Your task to perform on an android device: What's on my calendar tomorrow? Image 0: 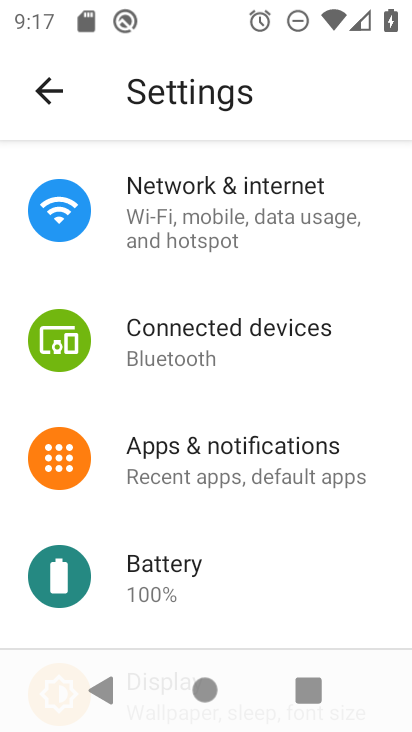
Step 0: press home button
Your task to perform on an android device: What's on my calendar tomorrow? Image 1: 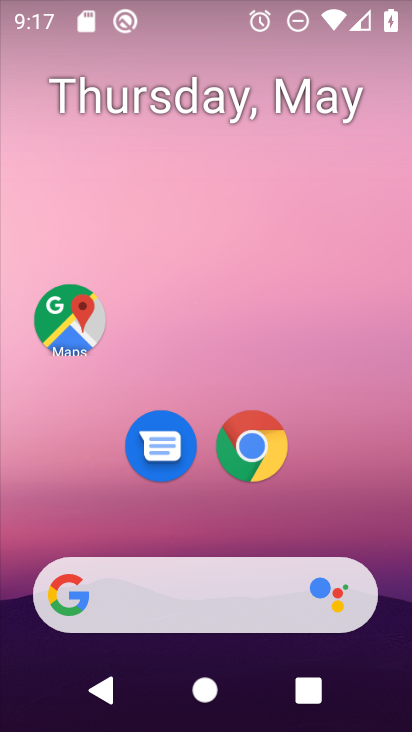
Step 1: drag from (359, 530) to (302, 158)
Your task to perform on an android device: What's on my calendar tomorrow? Image 2: 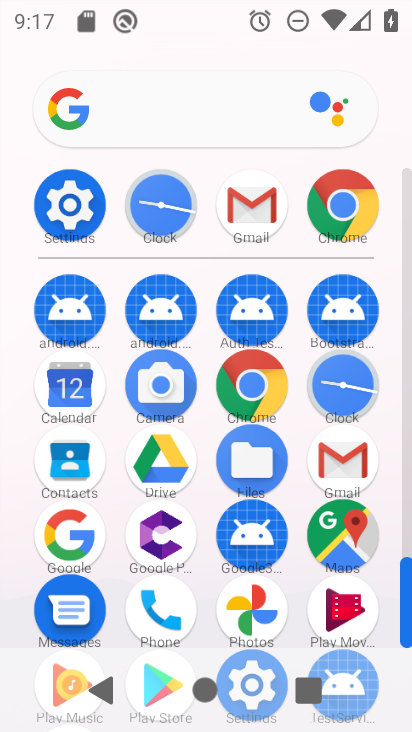
Step 2: click (79, 397)
Your task to perform on an android device: What's on my calendar tomorrow? Image 3: 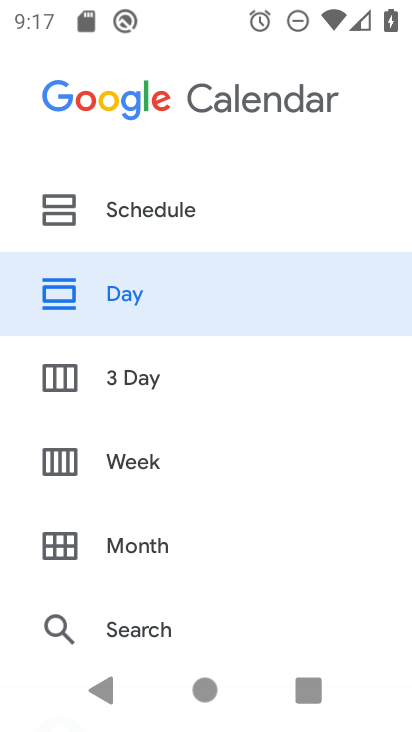
Step 3: click (129, 205)
Your task to perform on an android device: What's on my calendar tomorrow? Image 4: 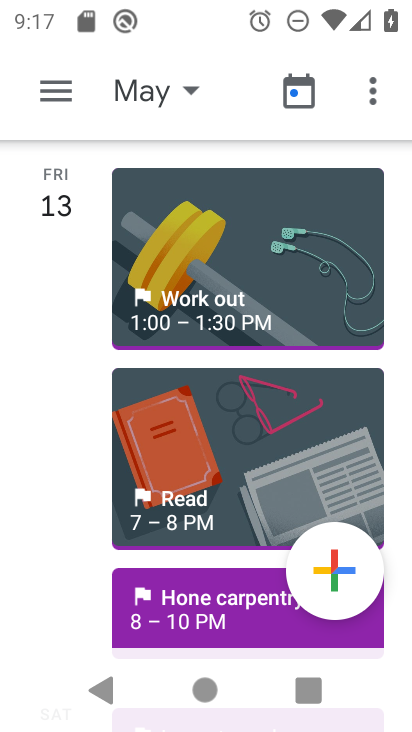
Step 4: click (145, 82)
Your task to perform on an android device: What's on my calendar tomorrow? Image 5: 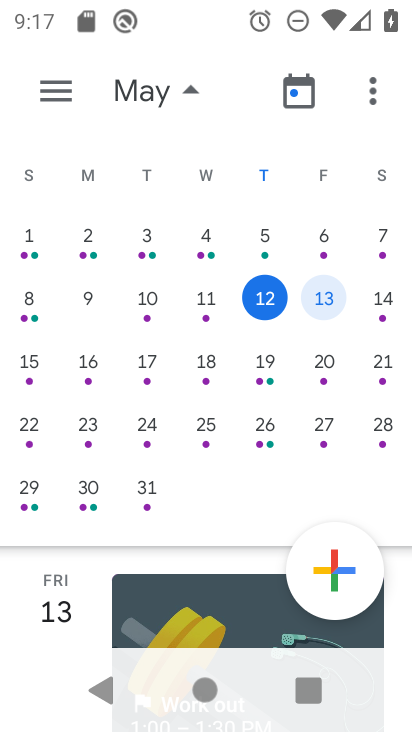
Step 5: click (325, 305)
Your task to perform on an android device: What's on my calendar tomorrow? Image 6: 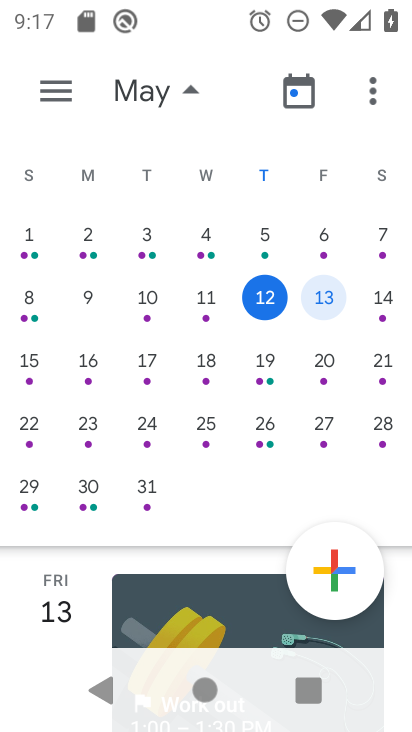
Step 6: task complete